Your task to perform on an android device: Open Wikipedia Image 0: 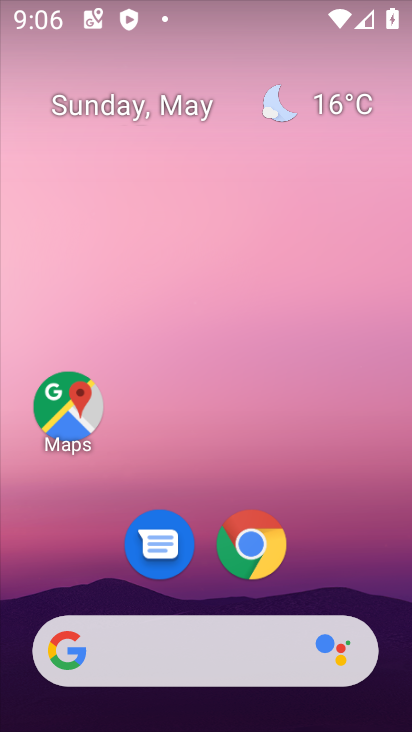
Step 0: click (238, 548)
Your task to perform on an android device: Open Wikipedia Image 1: 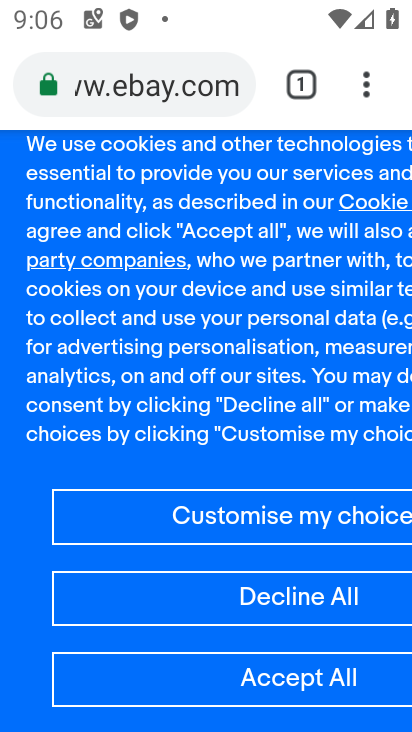
Step 1: press back button
Your task to perform on an android device: Open Wikipedia Image 2: 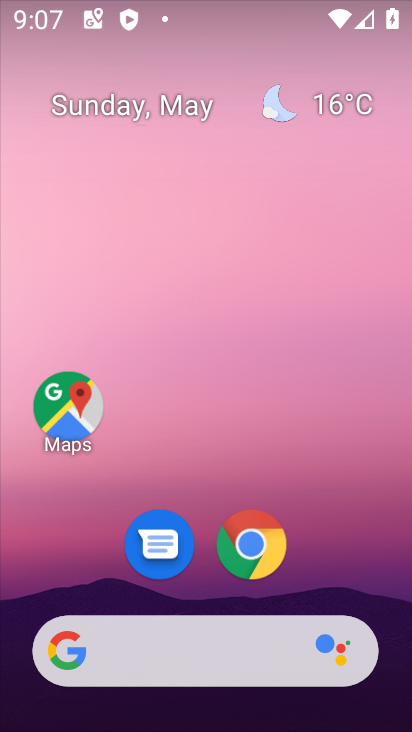
Step 2: click (237, 547)
Your task to perform on an android device: Open Wikipedia Image 3: 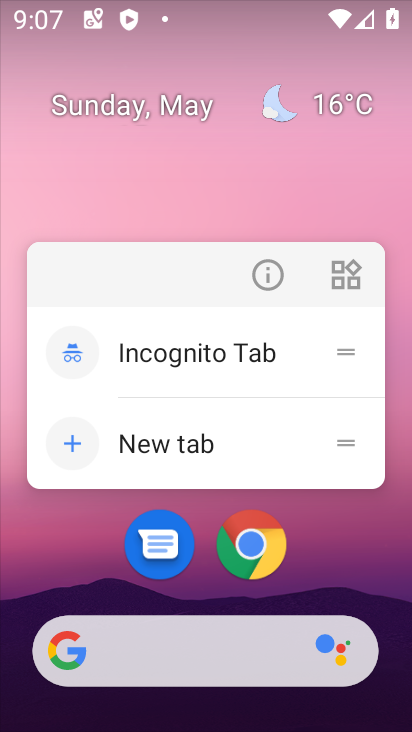
Step 3: click (246, 552)
Your task to perform on an android device: Open Wikipedia Image 4: 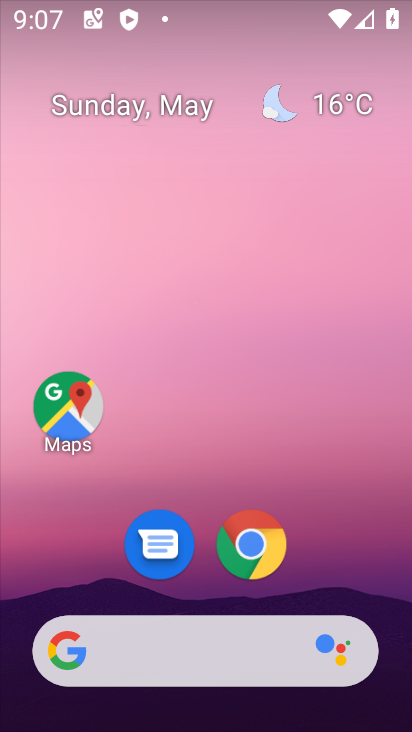
Step 4: click (253, 549)
Your task to perform on an android device: Open Wikipedia Image 5: 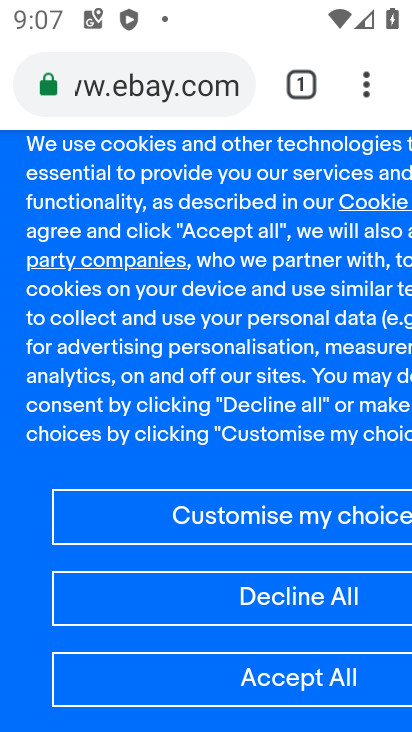
Step 5: click (220, 94)
Your task to perform on an android device: Open Wikipedia Image 6: 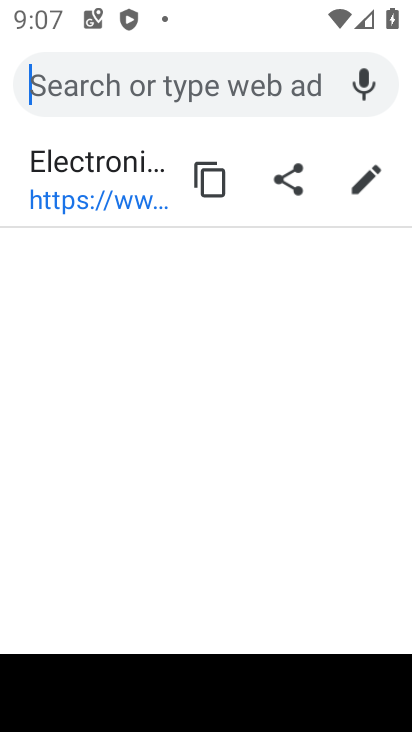
Step 6: type "www.wikipedia.com"
Your task to perform on an android device: Open Wikipedia Image 7: 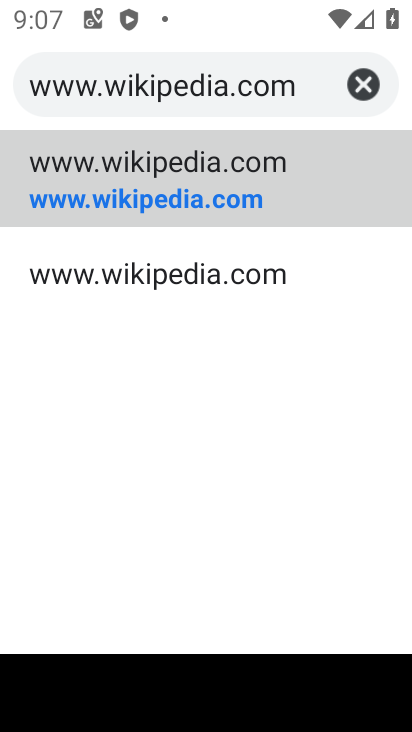
Step 7: click (169, 179)
Your task to perform on an android device: Open Wikipedia Image 8: 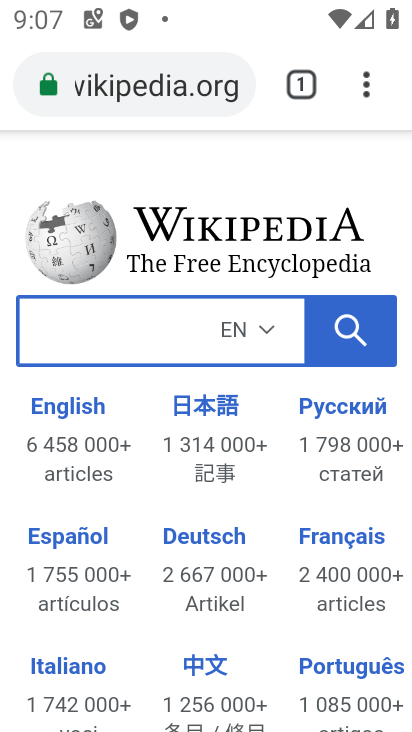
Step 8: task complete